Your task to perform on an android device: toggle location history Image 0: 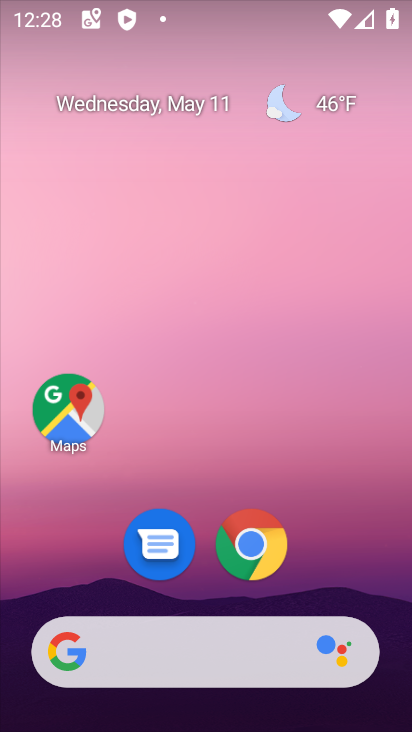
Step 0: click (68, 407)
Your task to perform on an android device: toggle location history Image 1: 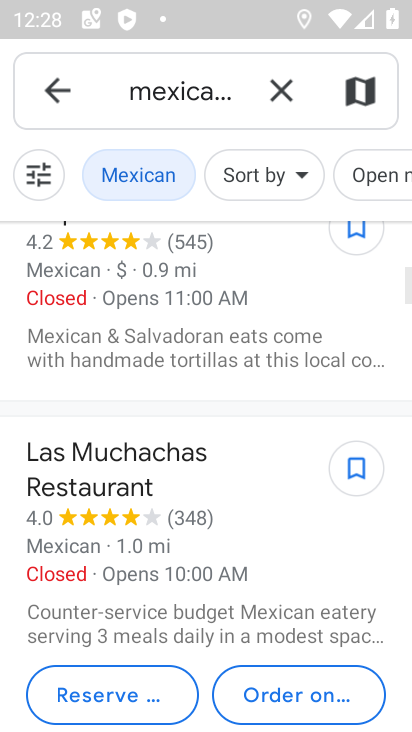
Step 1: click (279, 85)
Your task to perform on an android device: toggle location history Image 2: 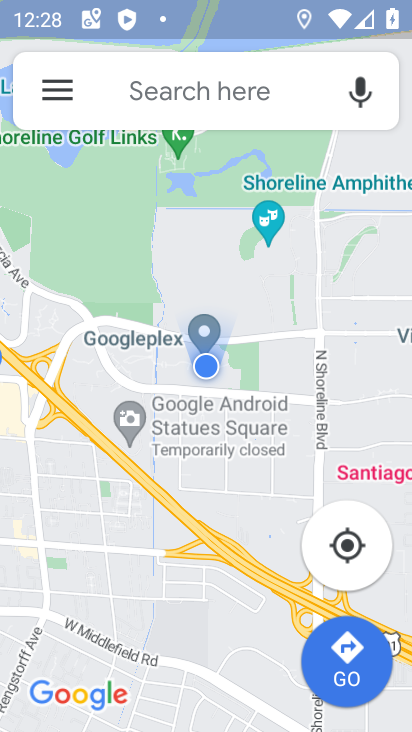
Step 2: click (62, 91)
Your task to perform on an android device: toggle location history Image 3: 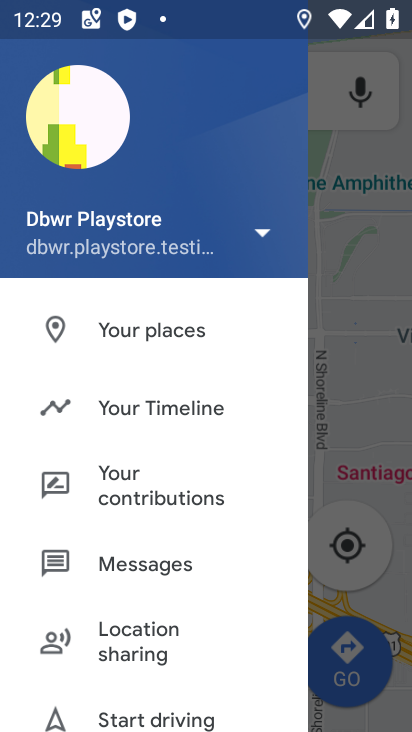
Step 3: drag from (194, 629) to (221, 225)
Your task to perform on an android device: toggle location history Image 4: 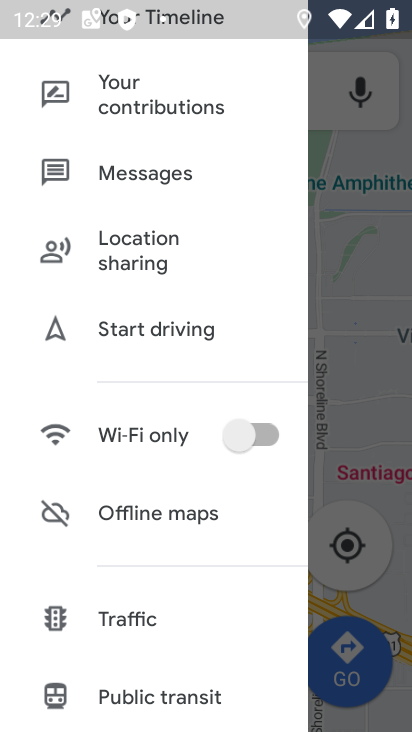
Step 4: drag from (208, 652) to (223, 198)
Your task to perform on an android device: toggle location history Image 5: 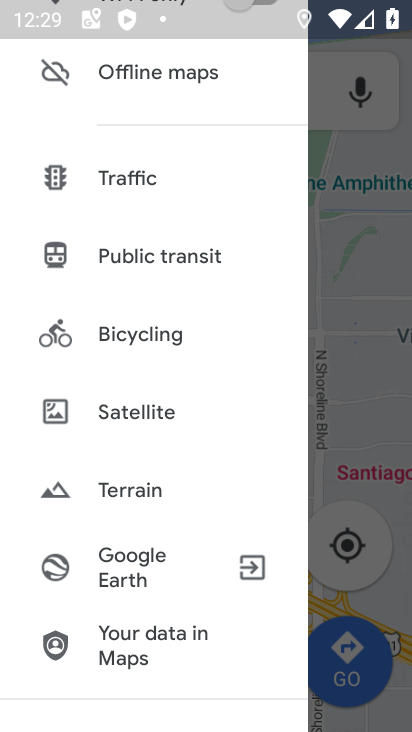
Step 5: drag from (180, 662) to (181, 277)
Your task to perform on an android device: toggle location history Image 6: 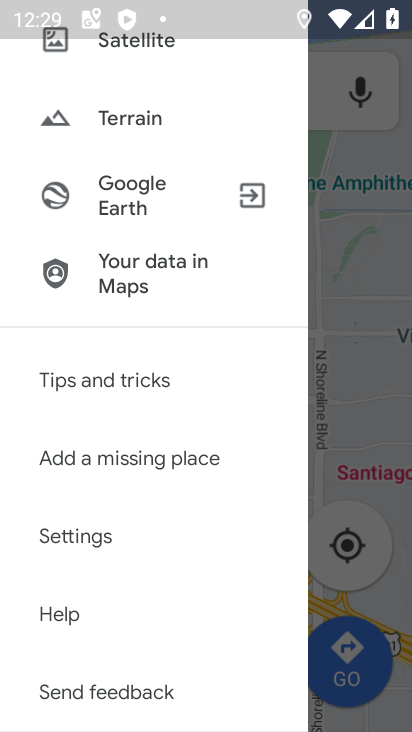
Step 6: click (75, 529)
Your task to perform on an android device: toggle location history Image 7: 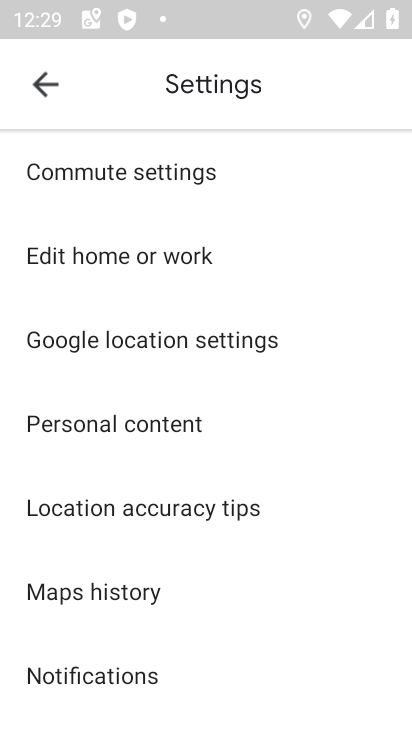
Step 7: click (112, 422)
Your task to perform on an android device: toggle location history Image 8: 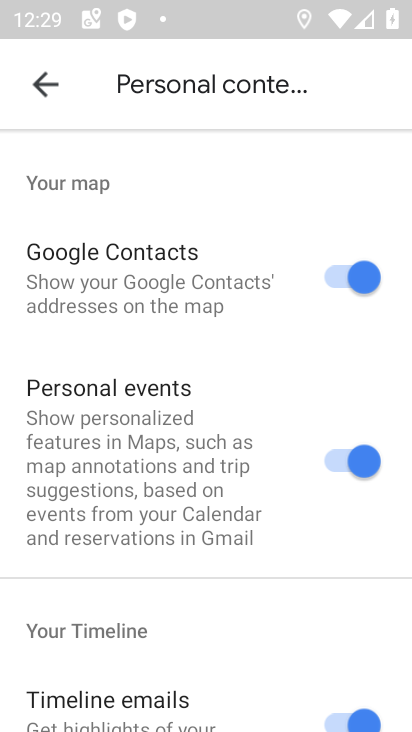
Step 8: drag from (230, 641) to (263, 292)
Your task to perform on an android device: toggle location history Image 9: 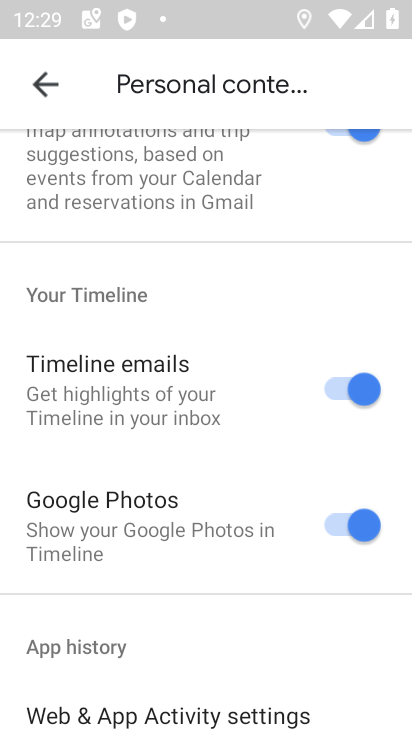
Step 9: drag from (239, 619) to (258, 272)
Your task to perform on an android device: toggle location history Image 10: 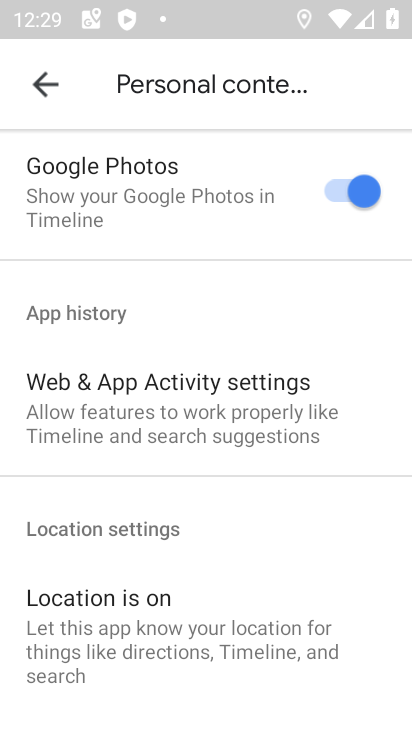
Step 10: drag from (251, 602) to (259, 209)
Your task to perform on an android device: toggle location history Image 11: 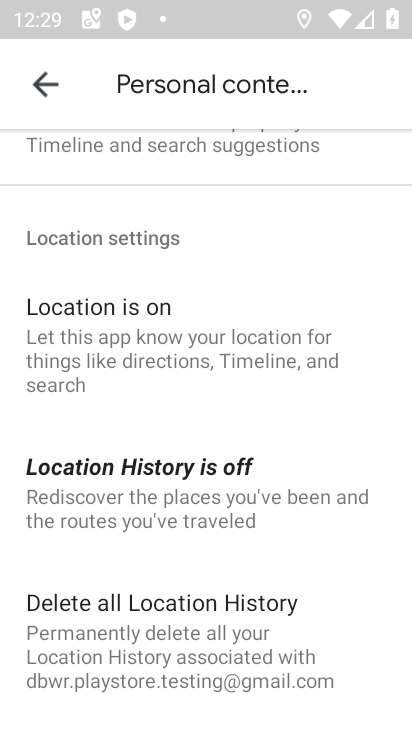
Step 11: drag from (234, 605) to (243, 262)
Your task to perform on an android device: toggle location history Image 12: 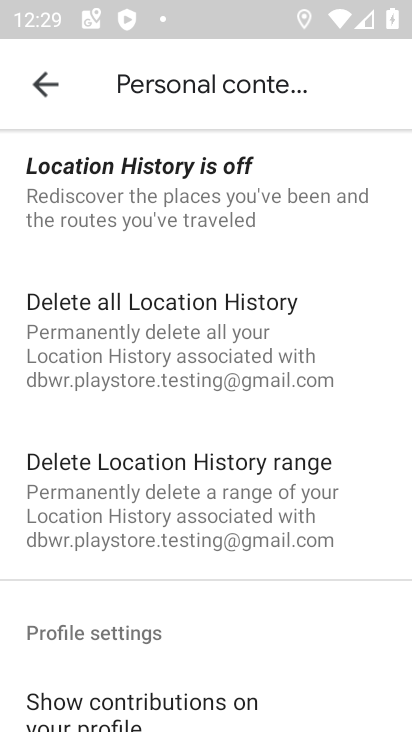
Step 12: click (115, 200)
Your task to perform on an android device: toggle location history Image 13: 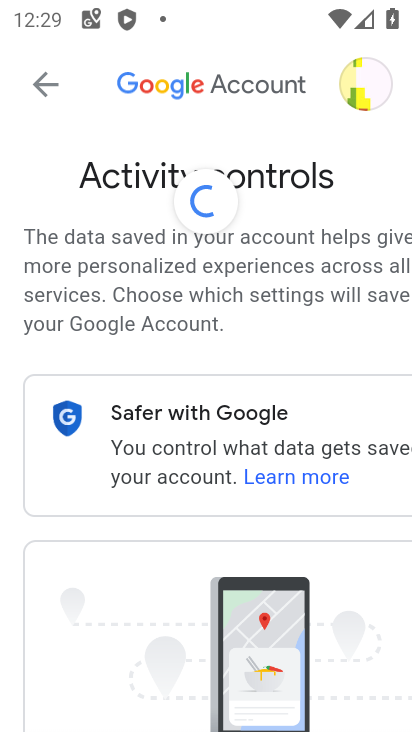
Step 13: drag from (252, 603) to (249, 230)
Your task to perform on an android device: toggle location history Image 14: 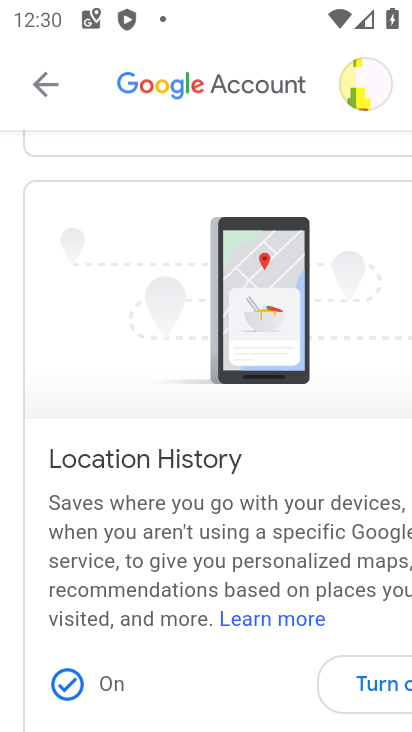
Step 14: drag from (273, 591) to (245, 99)
Your task to perform on an android device: toggle location history Image 15: 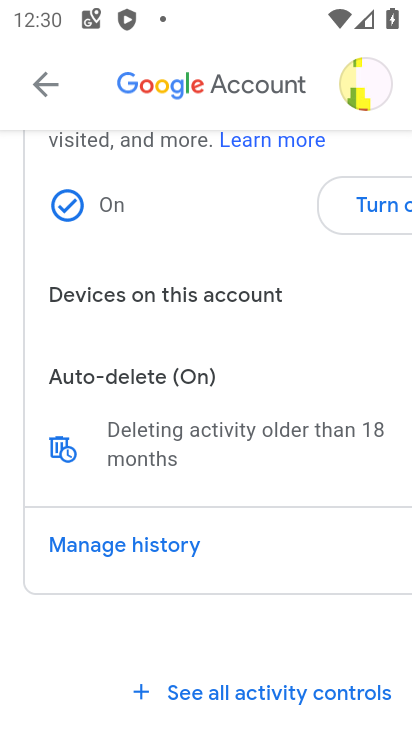
Step 15: click (371, 202)
Your task to perform on an android device: toggle location history Image 16: 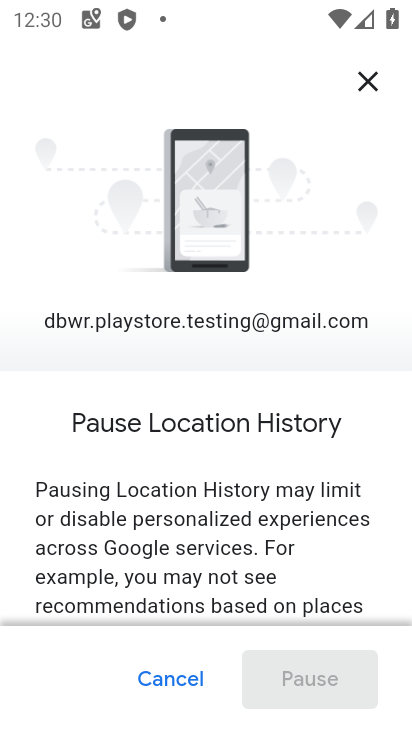
Step 16: drag from (235, 578) to (212, 140)
Your task to perform on an android device: toggle location history Image 17: 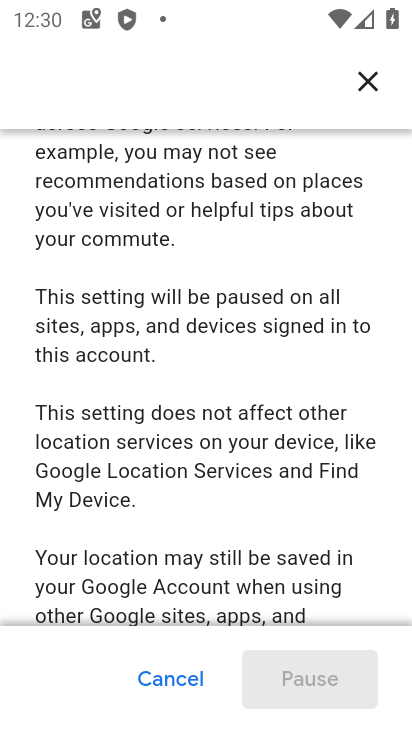
Step 17: drag from (263, 545) to (217, 174)
Your task to perform on an android device: toggle location history Image 18: 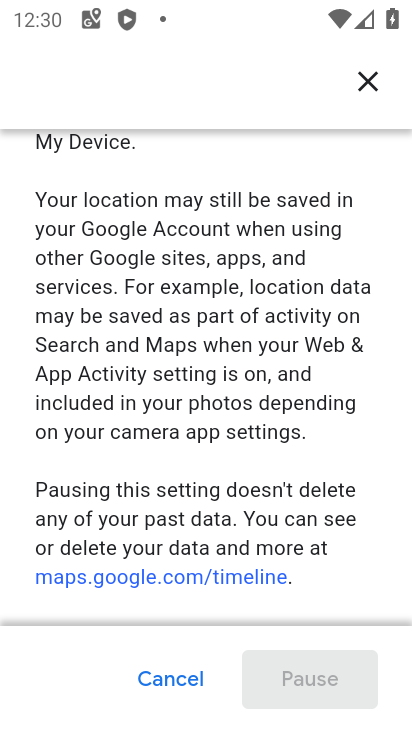
Step 18: drag from (227, 541) to (251, 145)
Your task to perform on an android device: toggle location history Image 19: 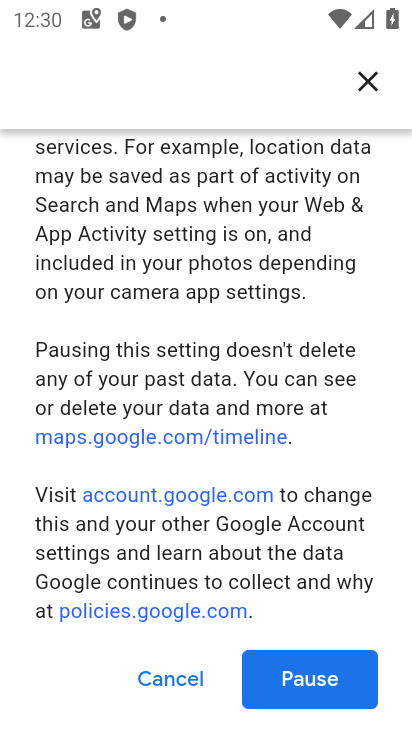
Step 19: click (306, 682)
Your task to perform on an android device: toggle location history Image 20: 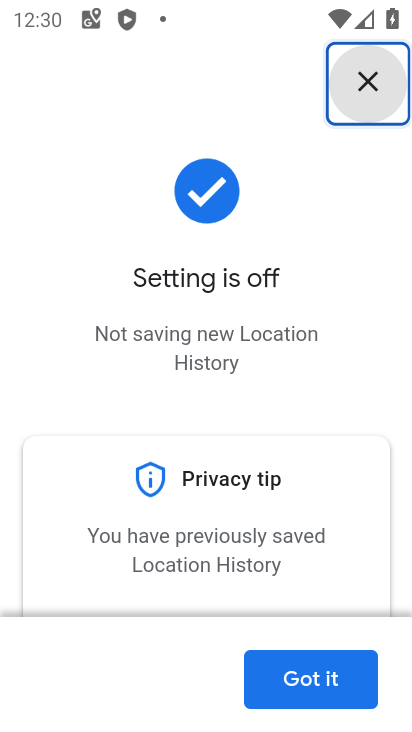
Step 20: click (314, 685)
Your task to perform on an android device: toggle location history Image 21: 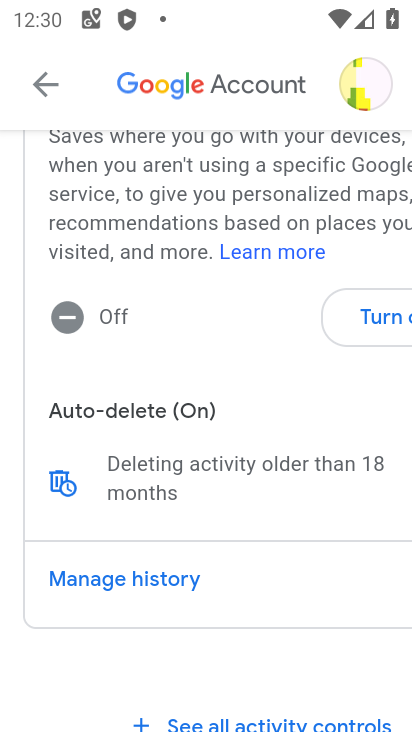
Step 21: task complete